Your task to perform on an android device: Open settings on Google Maps Image 0: 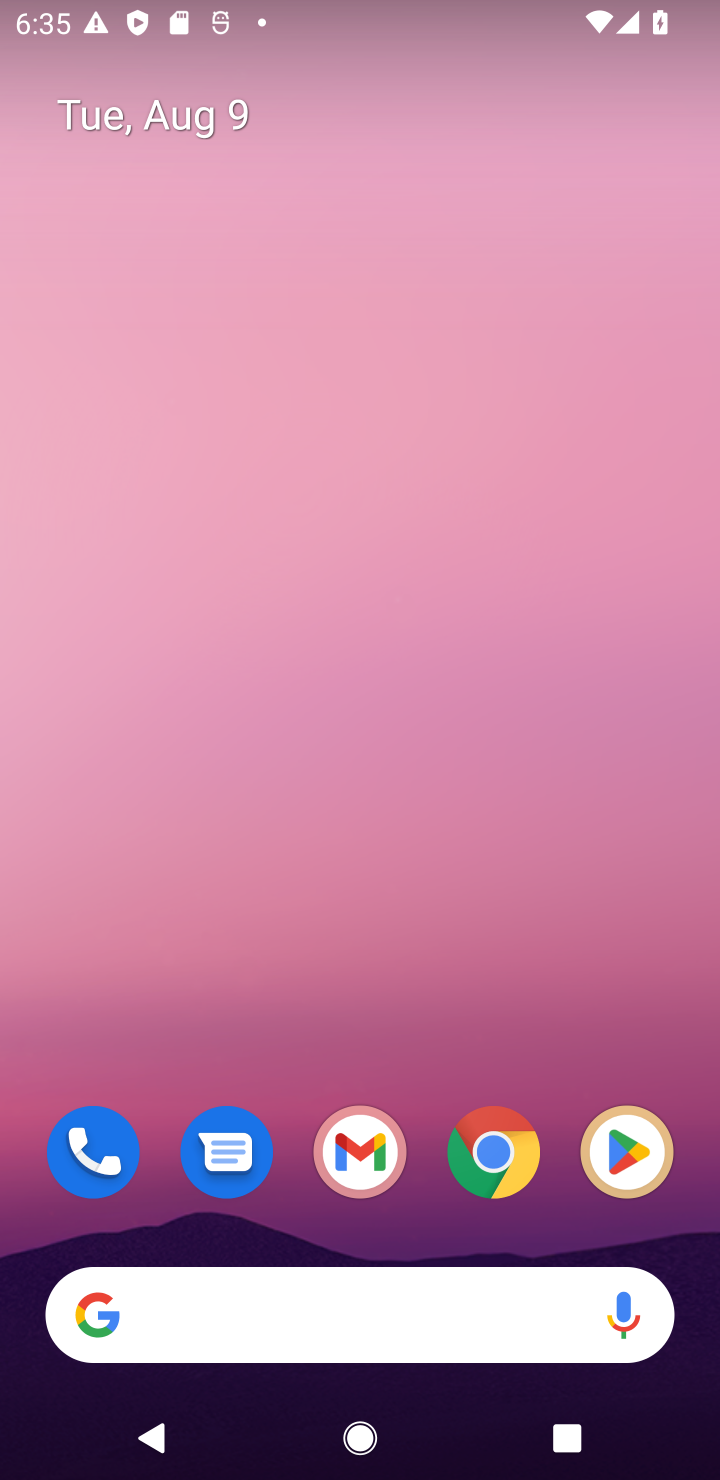
Step 0: drag from (359, 1200) to (60, 655)
Your task to perform on an android device: Open settings on Google Maps Image 1: 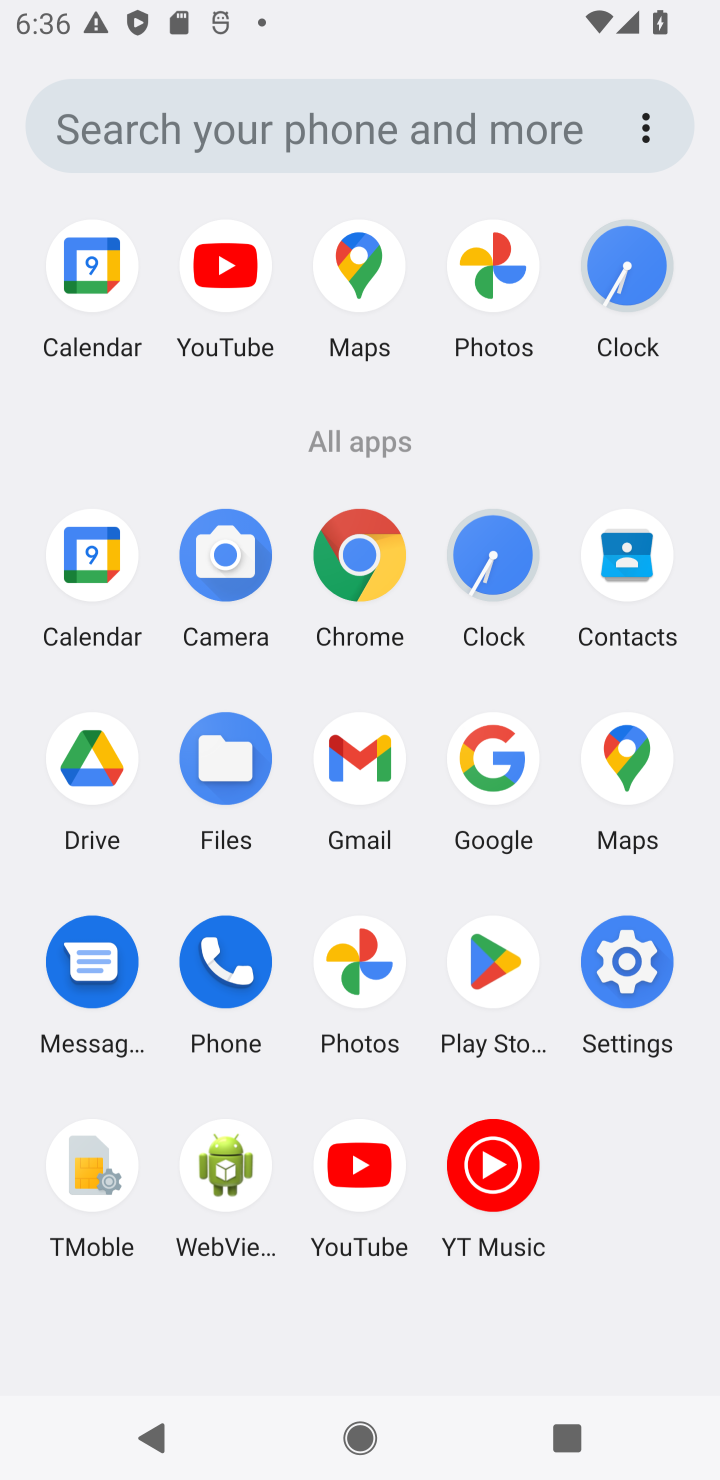
Step 1: click (617, 778)
Your task to perform on an android device: Open settings on Google Maps Image 2: 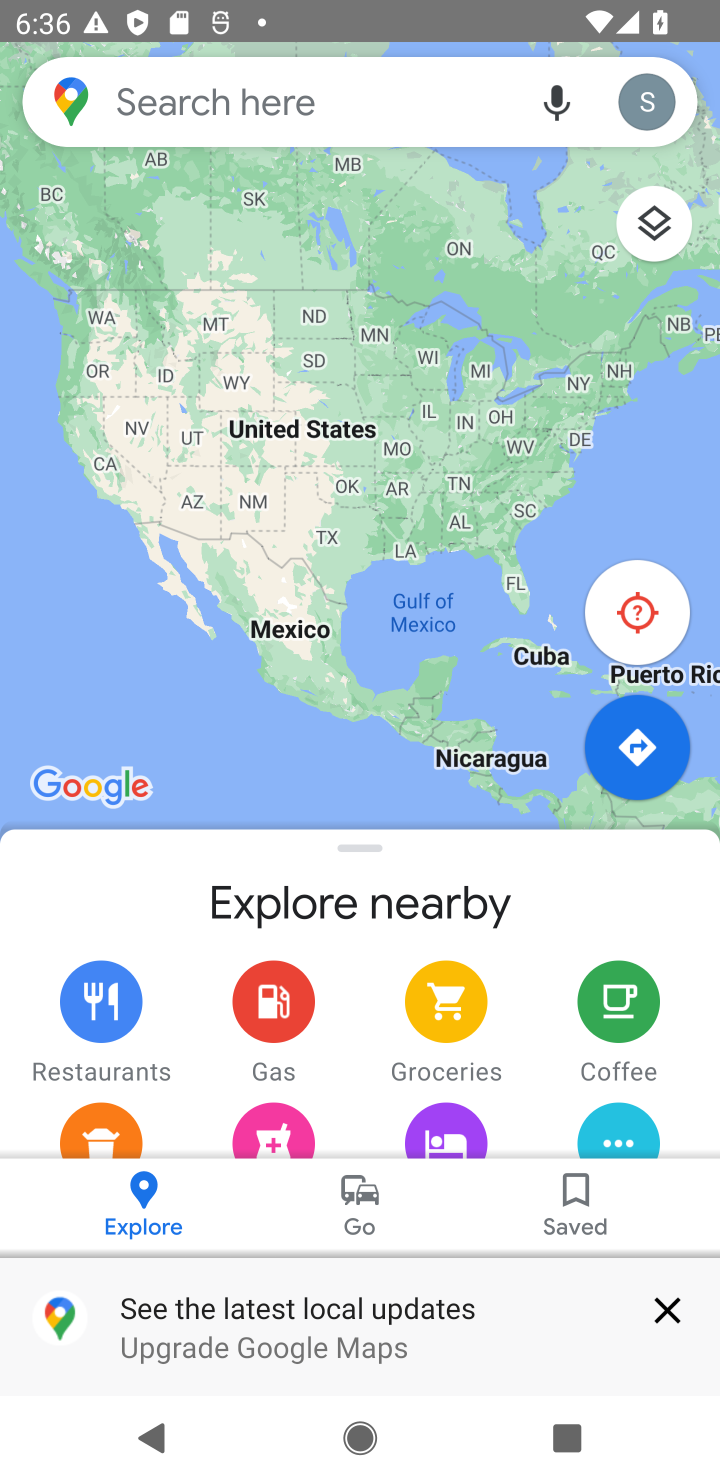
Step 2: click (637, 95)
Your task to perform on an android device: Open settings on Google Maps Image 3: 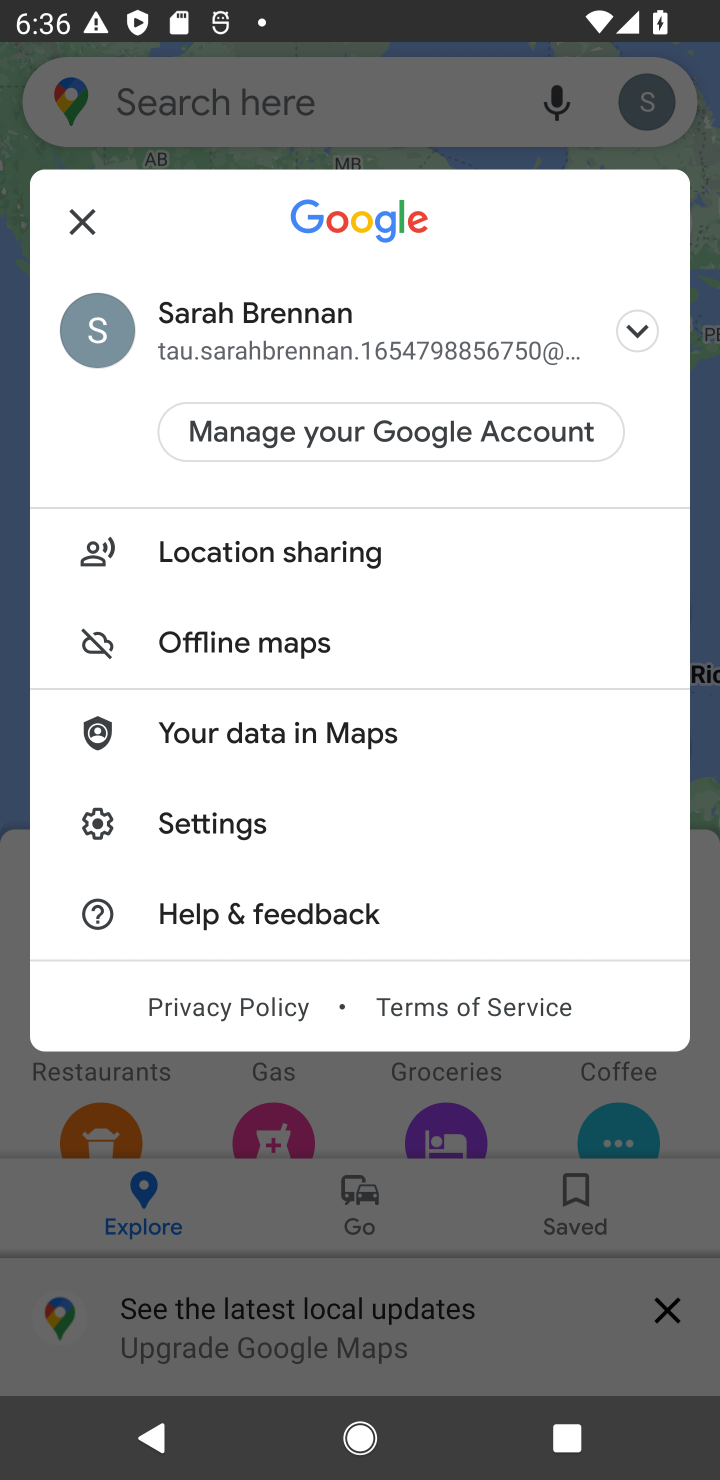
Step 3: click (221, 815)
Your task to perform on an android device: Open settings on Google Maps Image 4: 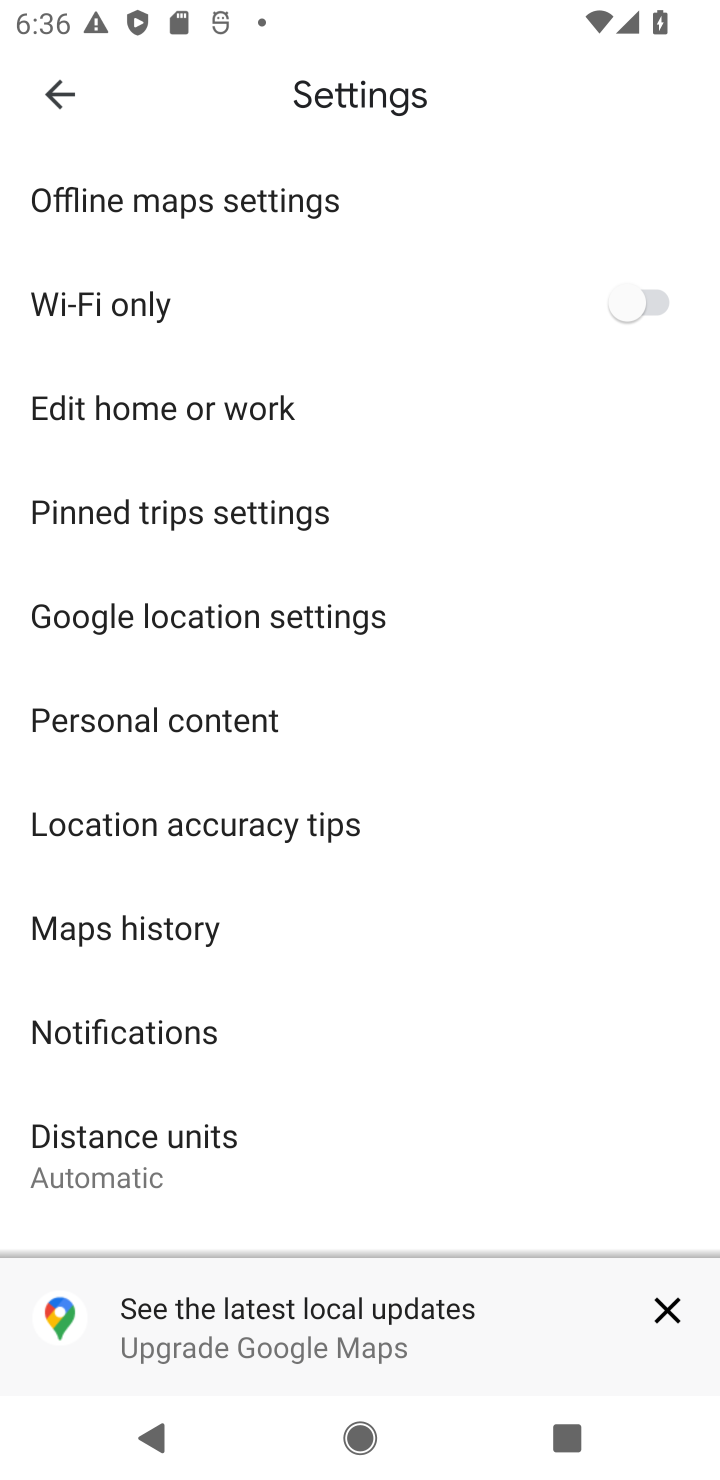
Step 4: task complete